Your task to perform on an android device: Open calendar and show me the fourth week of next month Image 0: 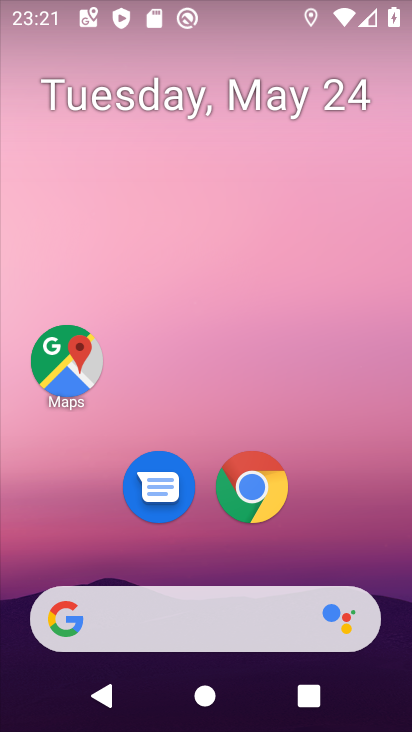
Step 0: drag from (193, 537) to (266, 31)
Your task to perform on an android device: Open calendar and show me the fourth week of next month Image 1: 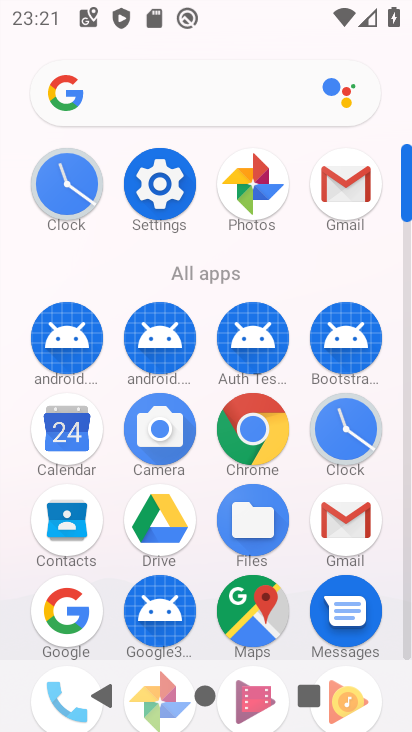
Step 1: click (67, 436)
Your task to perform on an android device: Open calendar and show me the fourth week of next month Image 2: 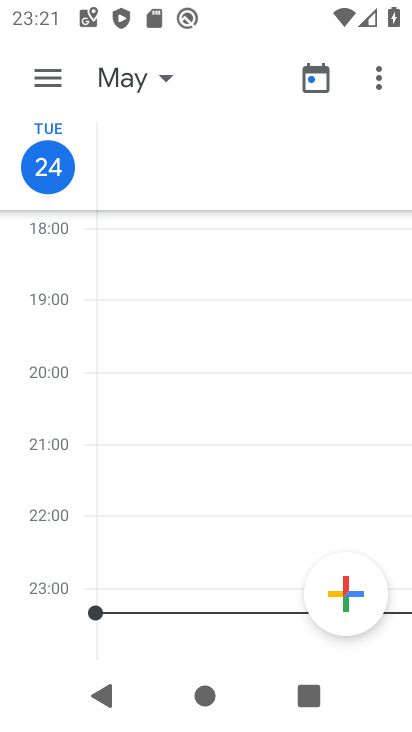
Step 2: click (140, 75)
Your task to perform on an android device: Open calendar and show me the fourth week of next month Image 3: 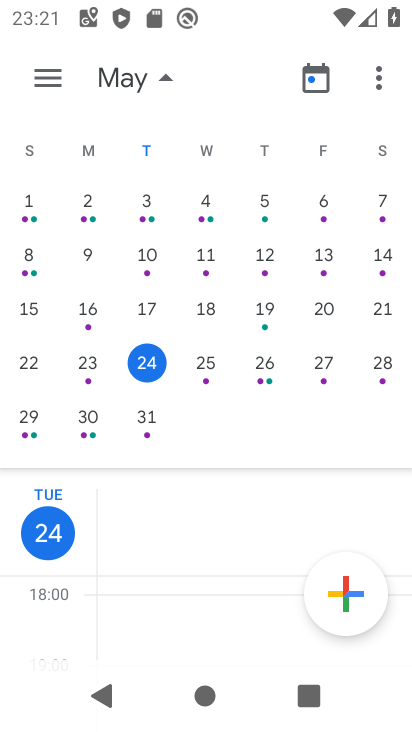
Step 3: drag from (372, 259) to (46, 256)
Your task to perform on an android device: Open calendar and show me the fourth week of next month Image 4: 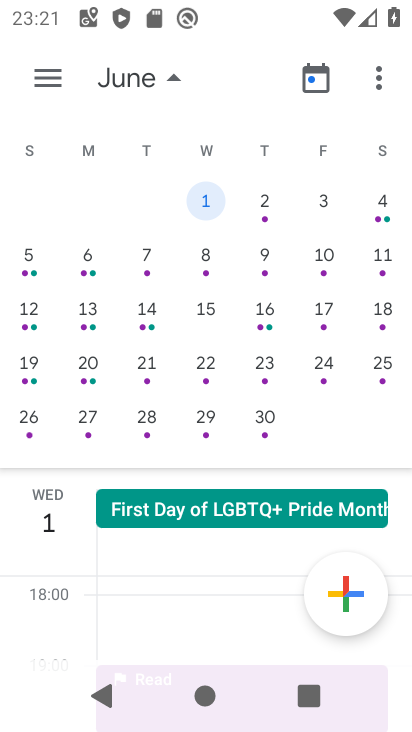
Step 4: click (90, 366)
Your task to perform on an android device: Open calendar and show me the fourth week of next month Image 5: 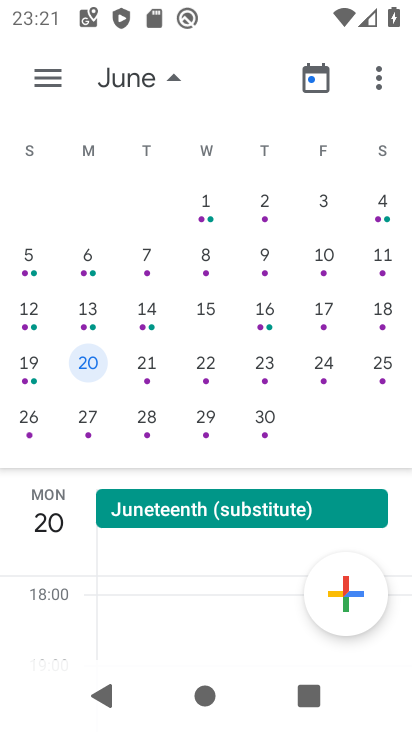
Step 5: task complete